Your task to perform on an android device: Open calendar and show me the first week of next month Image 0: 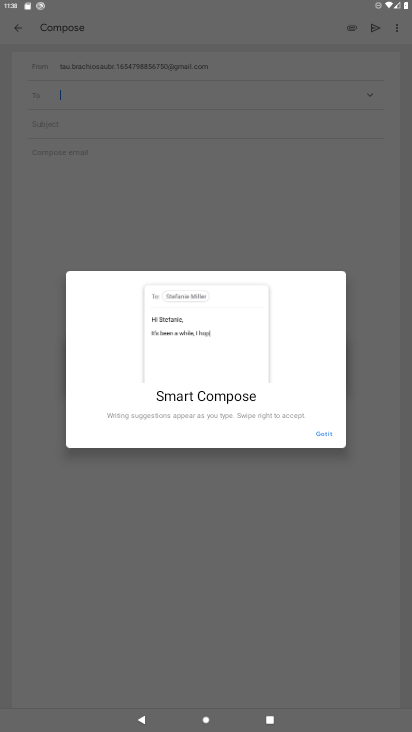
Step 0: press home button
Your task to perform on an android device: Open calendar and show me the first week of next month Image 1: 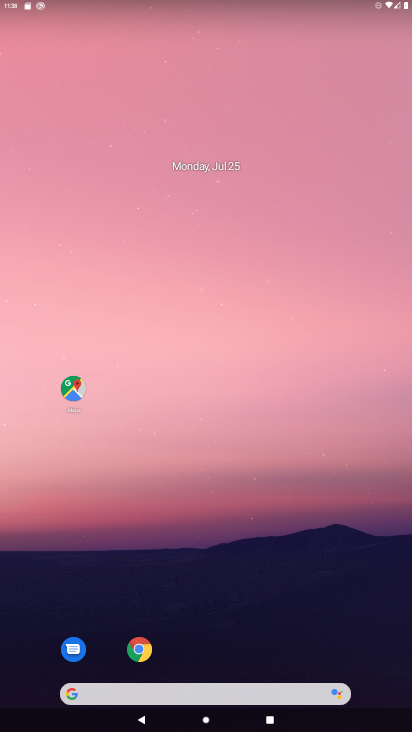
Step 1: drag from (388, 678) to (293, 110)
Your task to perform on an android device: Open calendar and show me the first week of next month Image 2: 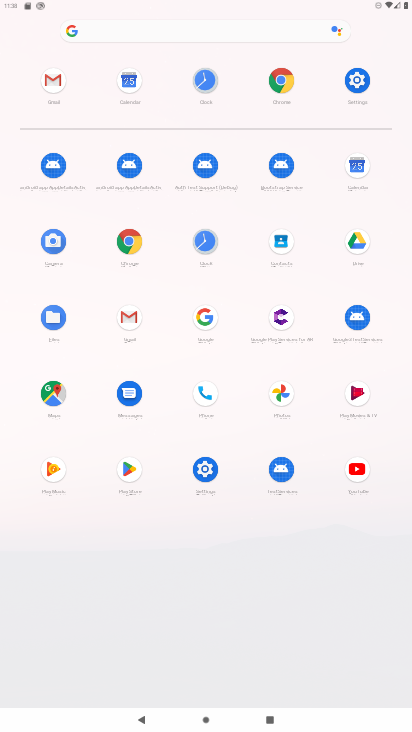
Step 2: click (356, 165)
Your task to perform on an android device: Open calendar and show me the first week of next month Image 3: 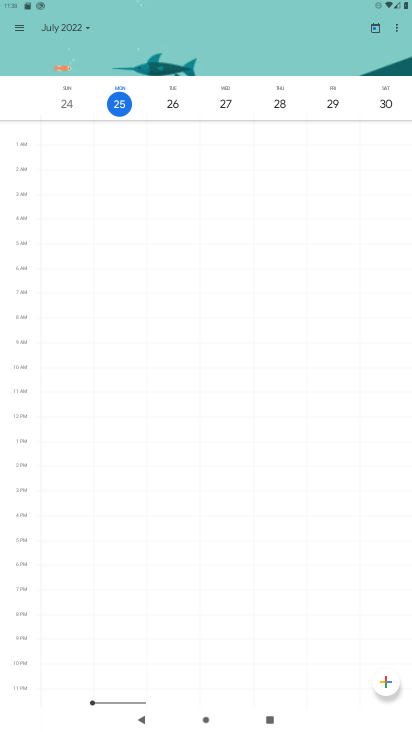
Step 3: click (85, 25)
Your task to perform on an android device: Open calendar and show me the first week of next month Image 4: 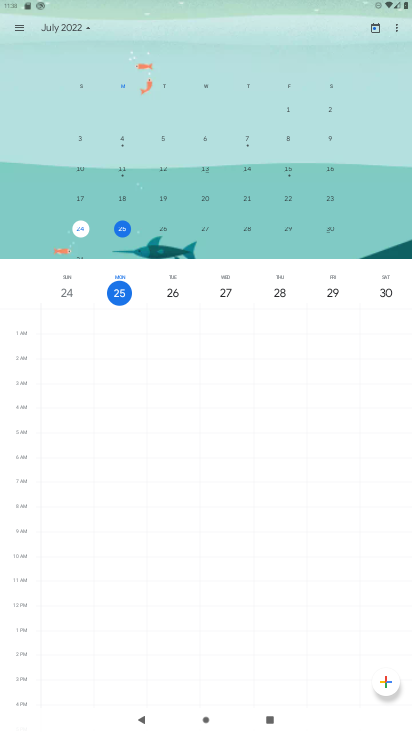
Step 4: drag from (337, 206) to (1, 182)
Your task to perform on an android device: Open calendar and show me the first week of next month Image 5: 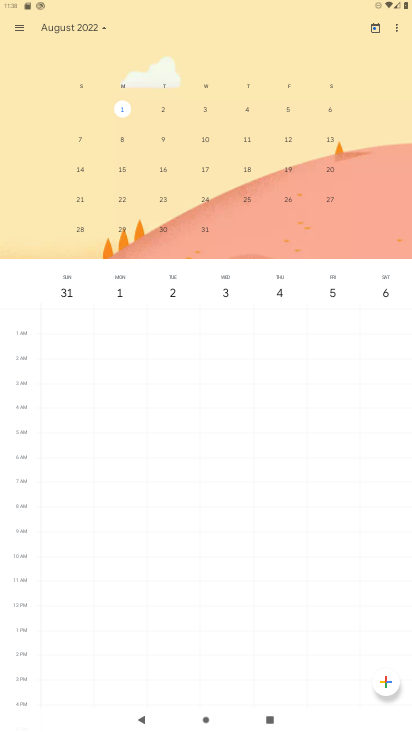
Step 5: click (76, 136)
Your task to perform on an android device: Open calendar and show me the first week of next month Image 6: 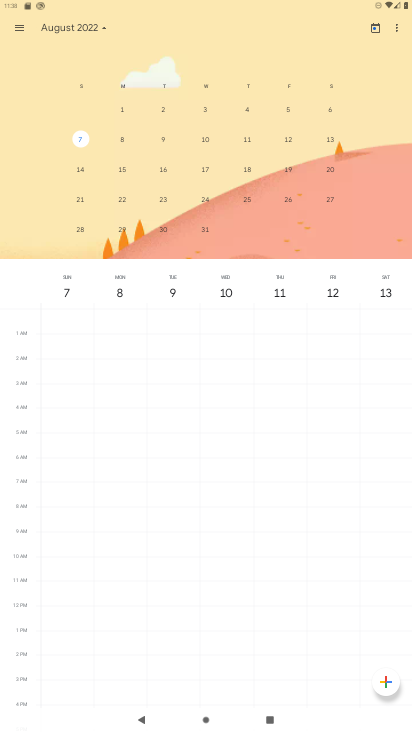
Step 6: task complete